Your task to perform on an android device: open chrome and create a bookmark for the current page Image 0: 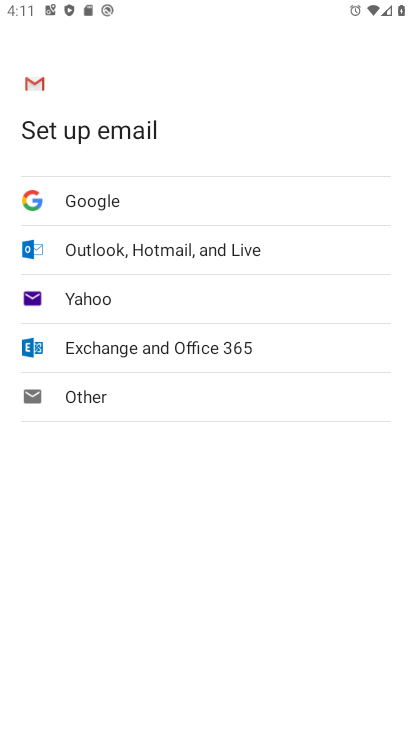
Step 0: press home button
Your task to perform on an android device: open chrome and create a bookmark for the current page Image 1: 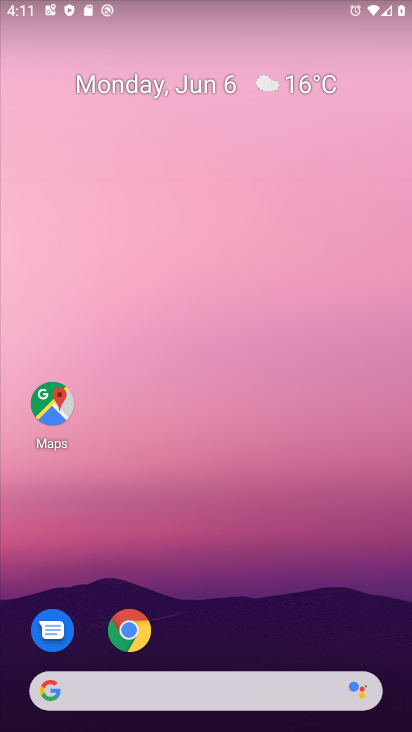
Step 1: click (136, 631)
Your task to perform on an android device: open chrome and create a bookmark for the current page Image 2: 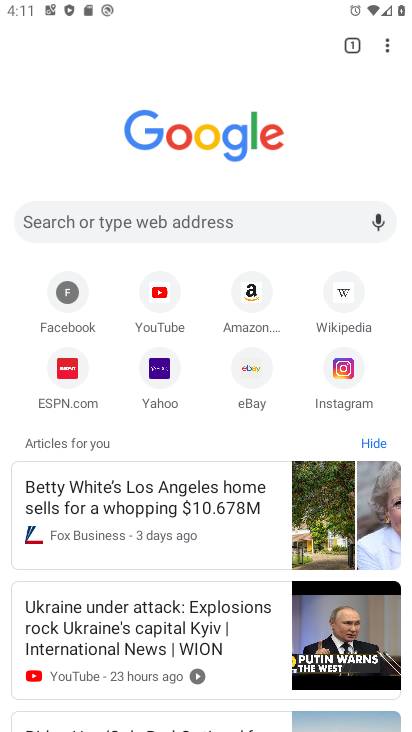
Step 2: click (382, 32)
Your task to perform on an android device: open chrome and create a bookmark for the current page Image 3: 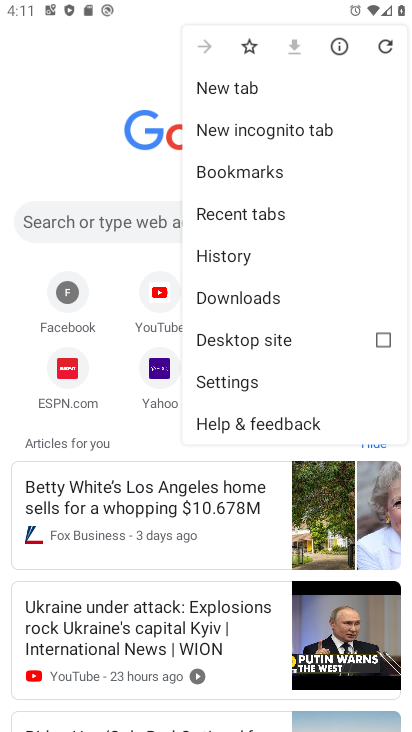
Step 3: click (250, 39)
Your task to perform on an android device: open chrome and create a bookmark for the current page Image 4: 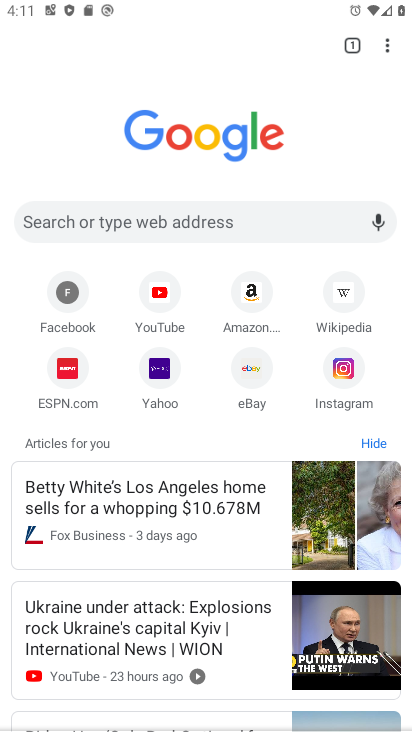
Step 4: task complete